Your task to perform on an android device: change notifications settings Image 0: 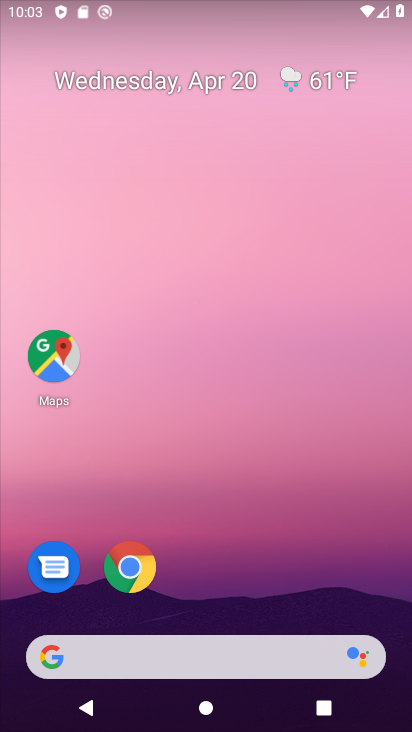
Step 0: drag from (227, 588) to (251, 130)
Your task to perform on an android device: change notifications settings Image 1: 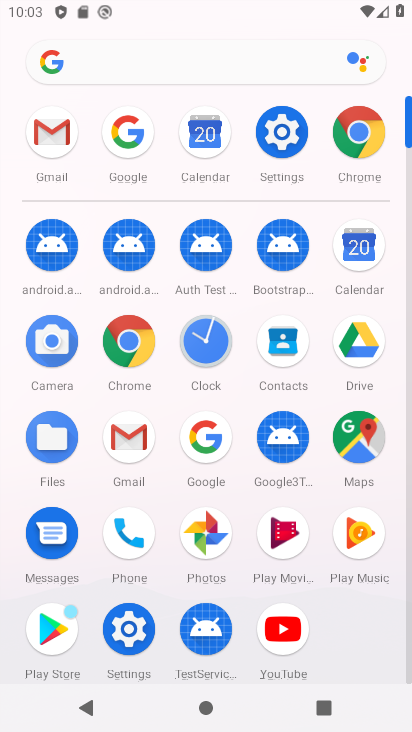
Step 1: click (264, 141)
Your task to perform on an android device: change notifications settings Image 2: 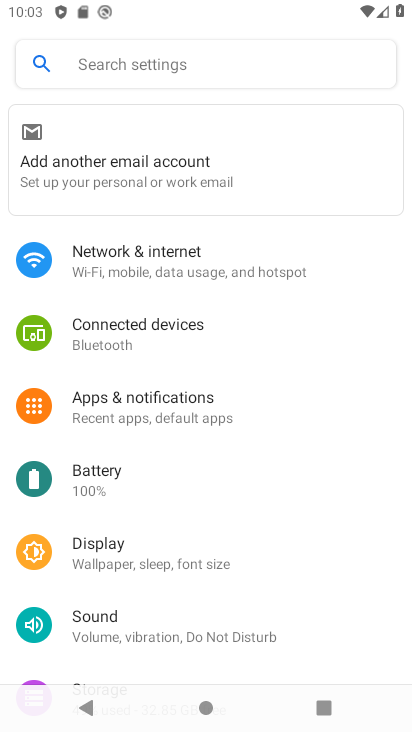
Step 2: click (183, 394)
Your task to perform on an android device: change notifications settings Image 3: 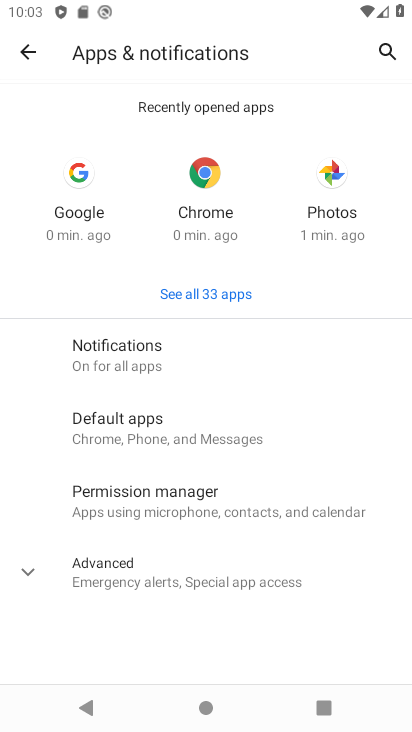
Step 3: click (153, 349)
Your task to perform on an android device: change notifications settings Image 4: 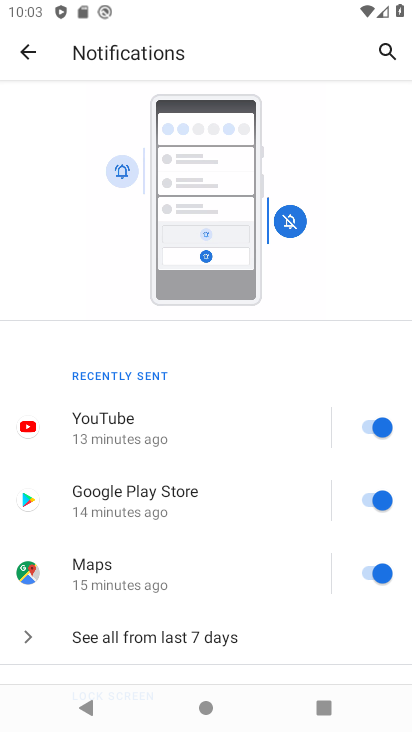
Step 4: drag from (233, 594) to (286, 287)
Your task to perform on an android device: change notifications settings Image 5: 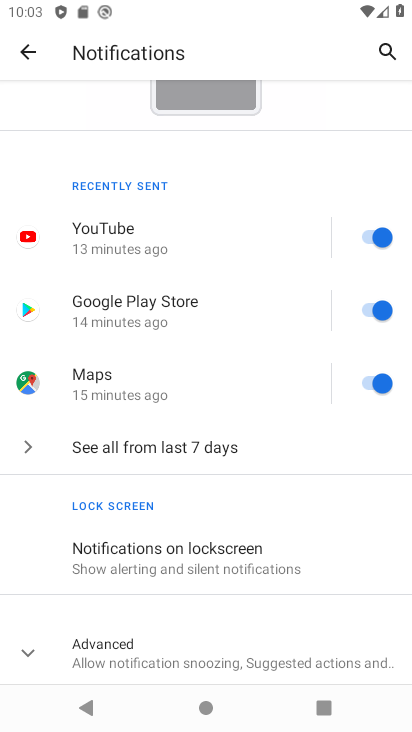
Step 5: drag from (205, 551) to (249, 336)
Your task to perform on an android device: change notifications settings Image 6: 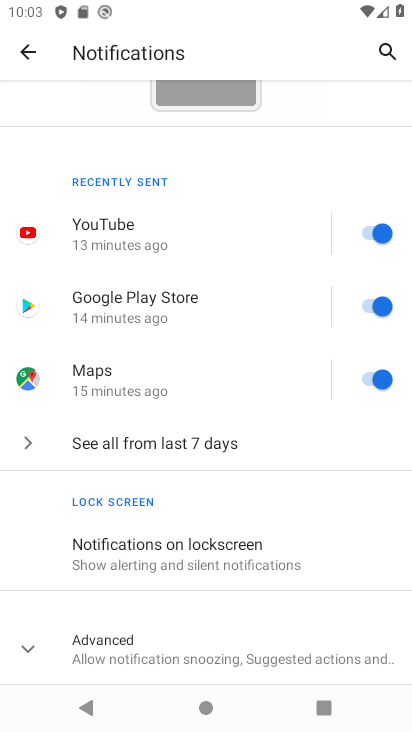
Step 6: click (208, 556)
Your task to perform on an android device: change notifications settings Image 7: 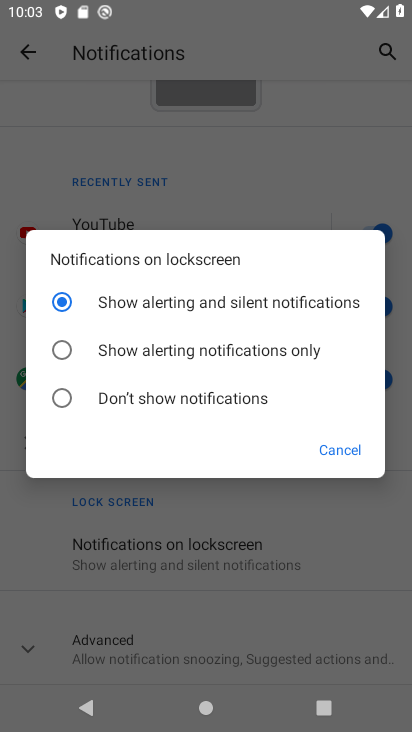
Step 7: click (186, 397)
Your task to perform on an android device: change notifications settings Image 8: 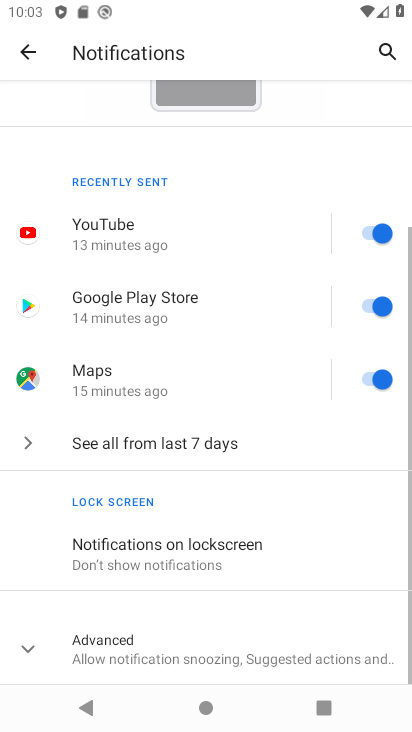
Step 8: task complete